Your task to perform on an android device: turn on translation in the chrome app Image 0: 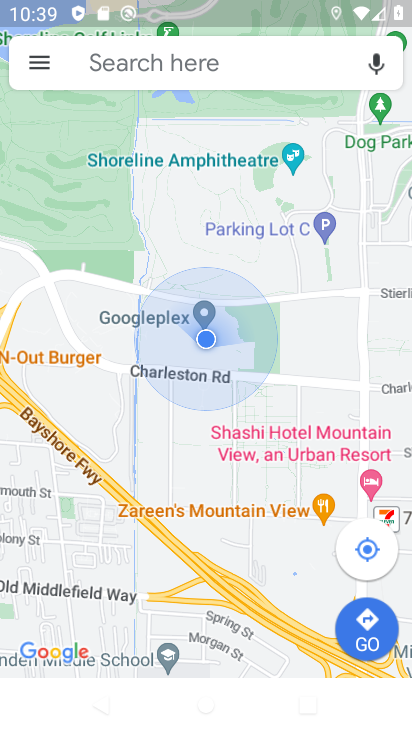
Step 0: press home button
Your task to perform on an android device: turn on translation in the chrome app Image 1: 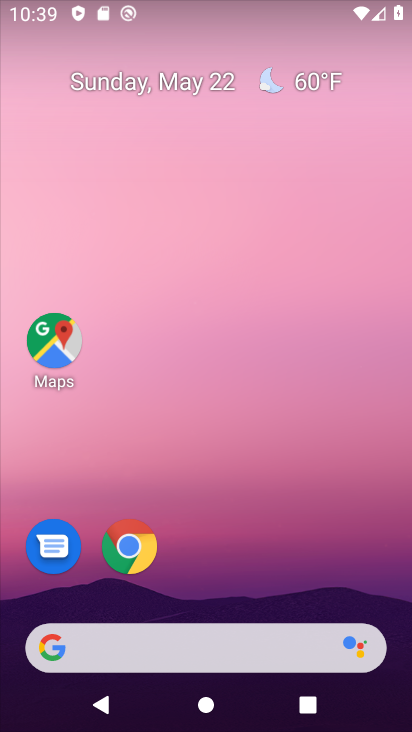
Step 1: click (130, 554)
Your task to perform on an android device: turn on translation in the chrome app Image 2: 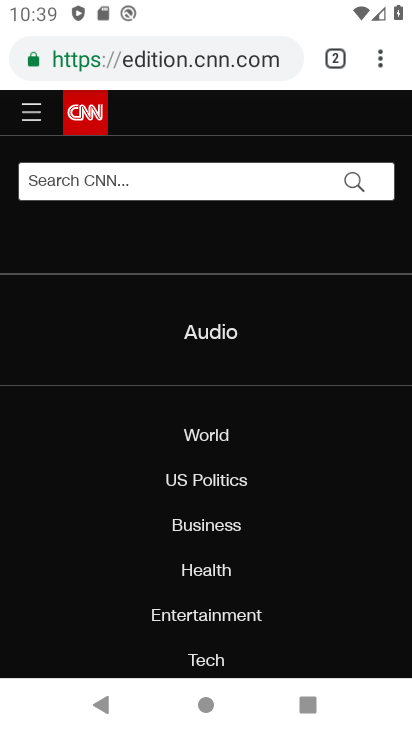
Step 2: click (377, 64)
Your task to perform on an android device: turn on translation in the chrome app Image 3: 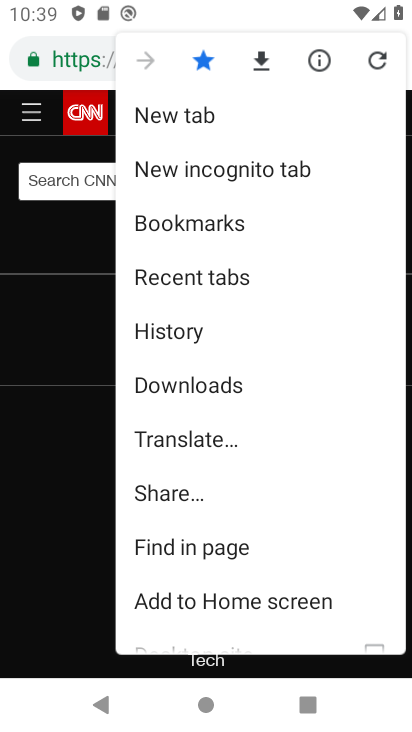
Step 3: drag from (189, 575) to (189, 274)
Your task to perform on an android device: turn on translation in the chrome app Image 4: 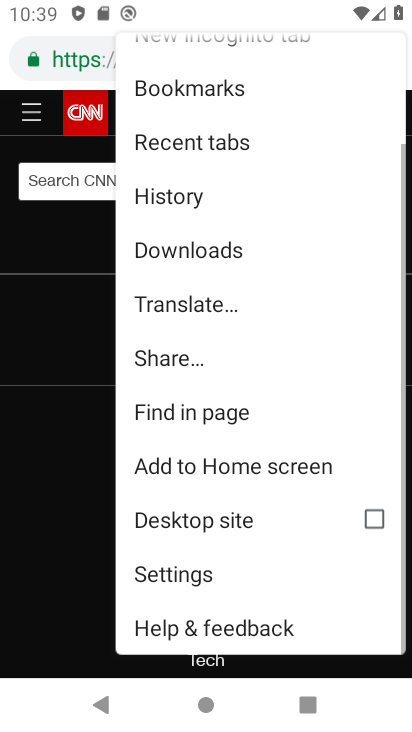
Step 4: click (179, 568)
Your task to perform on an android device: turn on translation in the chrome app Image 5: 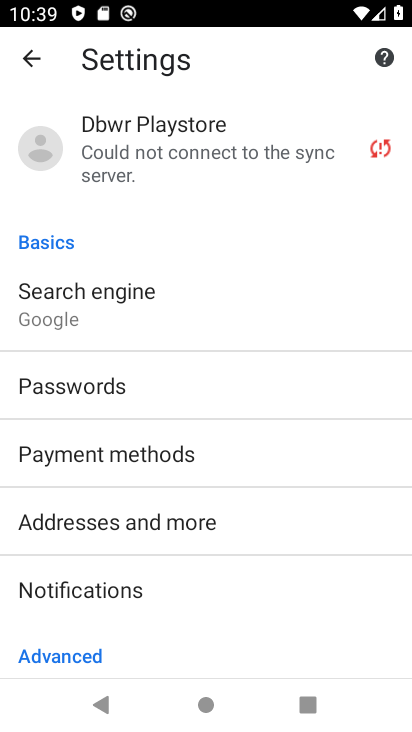
Step 5: drag from (148, 651) to (148, 300)
Your task to perform on an android device: turn on translation in the chrome app Image 6: 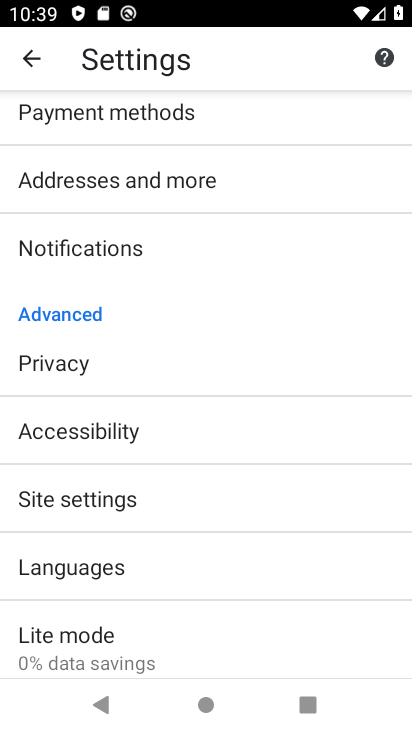
Step 6: click (91, 563)
Your task to perform on an android device: turn on translation in the chrome app Image 7: 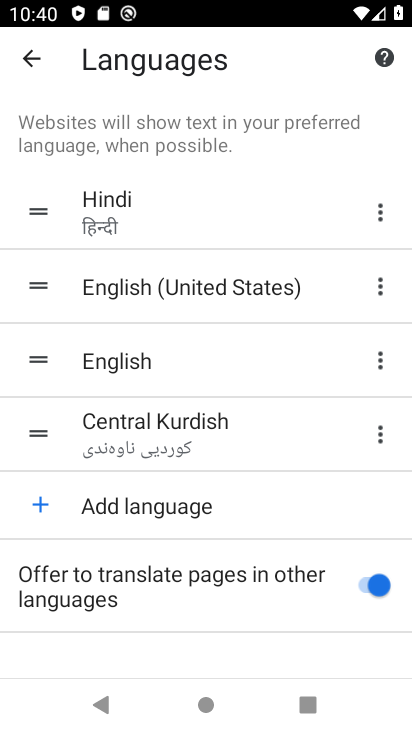
Step 7: task complete